Your task to perform on an android device: change the clock style Image 0: 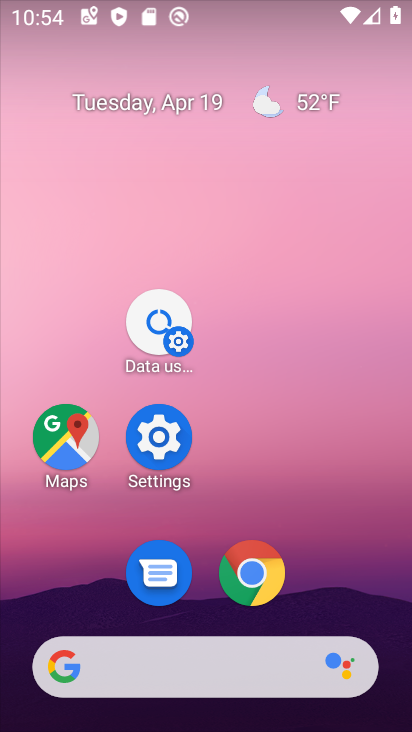
Step 0: drag from (340, 573) to (336, 37)
Your task to perform on an android device: change the clock style Image 1: 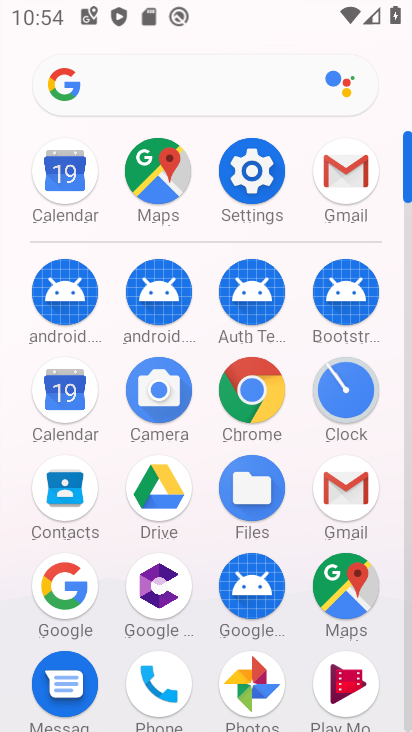
Step 1: click (341, 392)
Your task to perform on an android device: change the clock style Image 2: 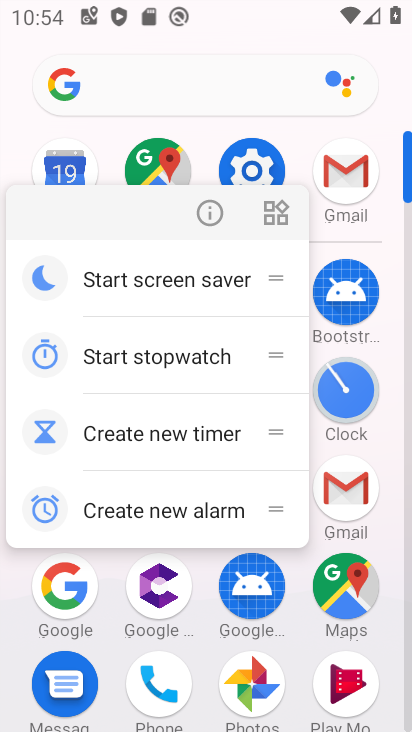
Step 2: click (362, 392)
Your task to perform on an android device: change the clock style Image 3: 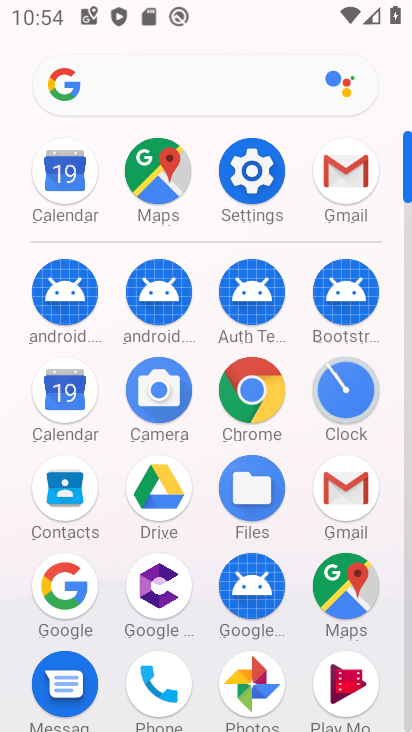
Step 3: click (362, 392)
Your task to perform on an android device: change the clock style Image 4: 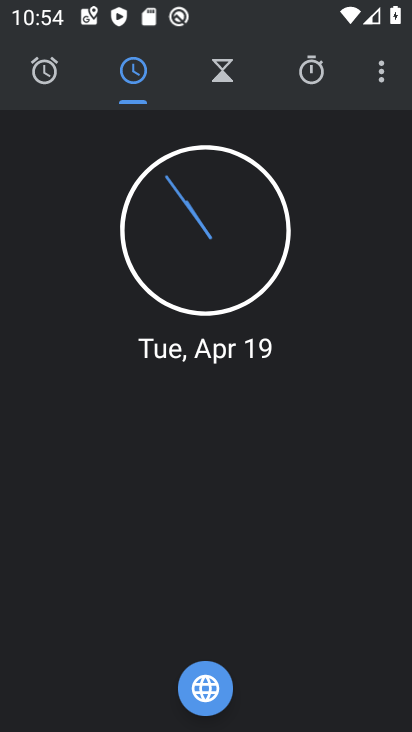
Step 4: click (381, 77)
Your task to perform on an android device: change the clock style Image 5: 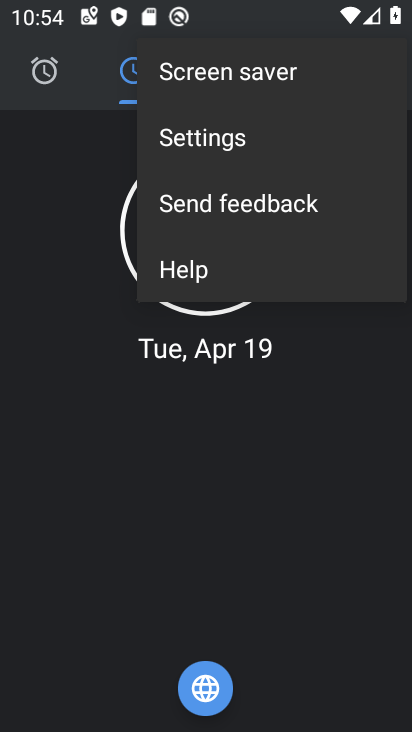
Step 5: click (220, 145)
Your task to perform on an android device: change the clock style Image 6: 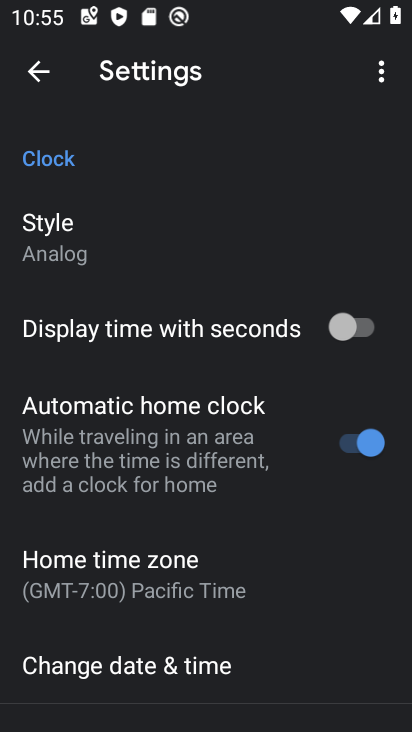
Step 6: click (49, 244)
Your task to perform on an android device: change the clock style Image 7: 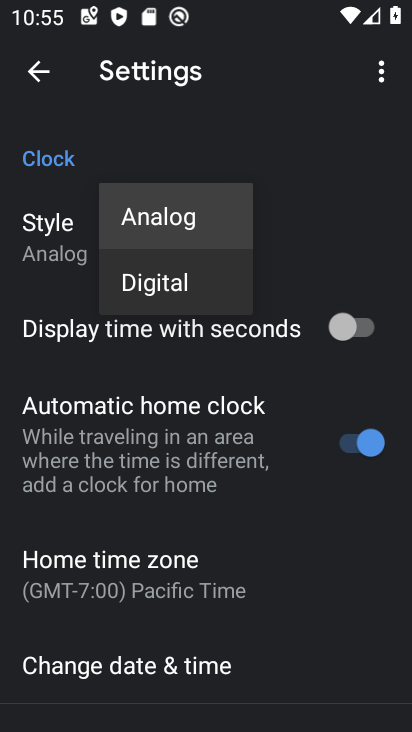
Step 7: click (166, 288)
Your task to perform on an android device: change the clock style Image 8: 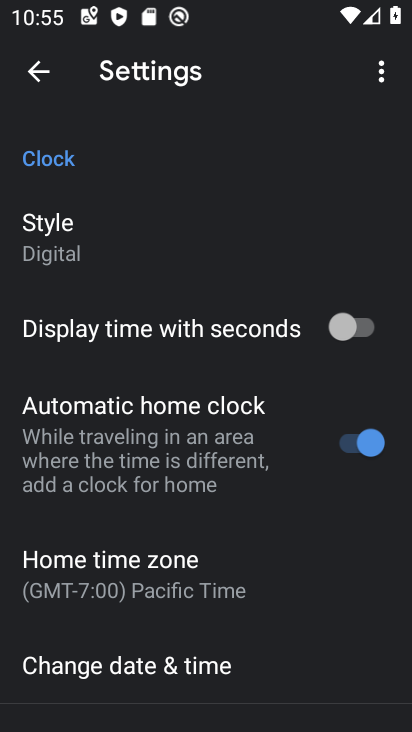
Step 8: task complete